Your task to perform on an android device: Search for Mexican restaurants on Maps Image 0: 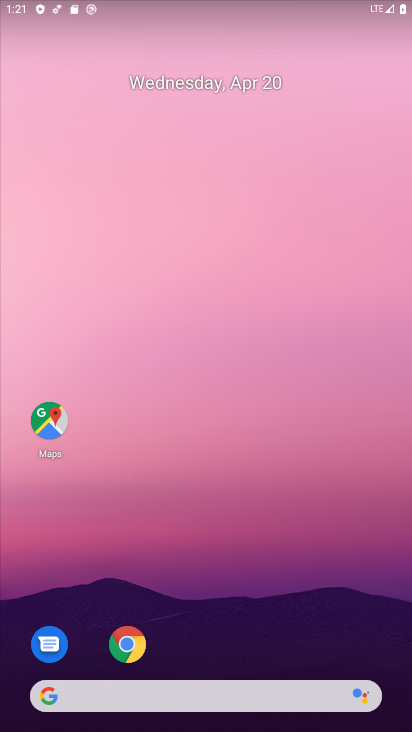
Step 0: drag from (246, 640) to (314, 8)
Your task to perform on an android device: Search for Mexican restaurants on Maps Image 1: 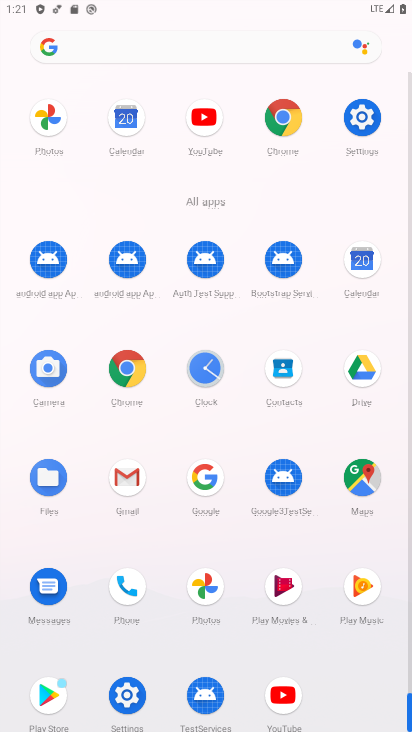
Step 1: click (358, 473)
Your task to perform on an android device: Search for Mexican restaurants on Maps Image 2: 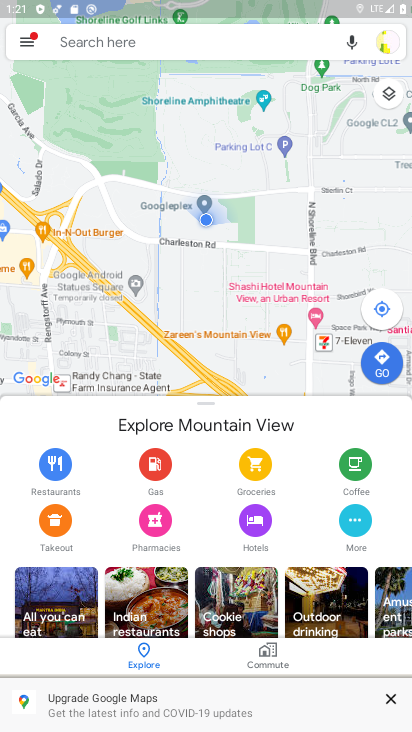
Step 2: click (167, 40)
Your task to perform on an android device: Search for Mexican restaurants on Maps Image 3: 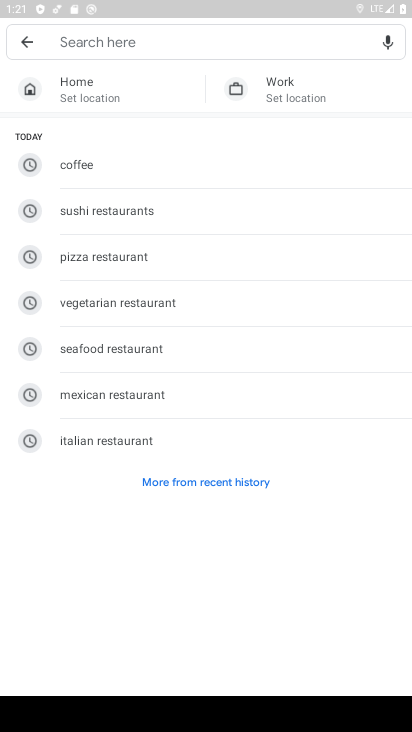
Step 3: click (167, 40)
Your task to perform on an android device: Search for Mexican restaurants on Maps Image 4: 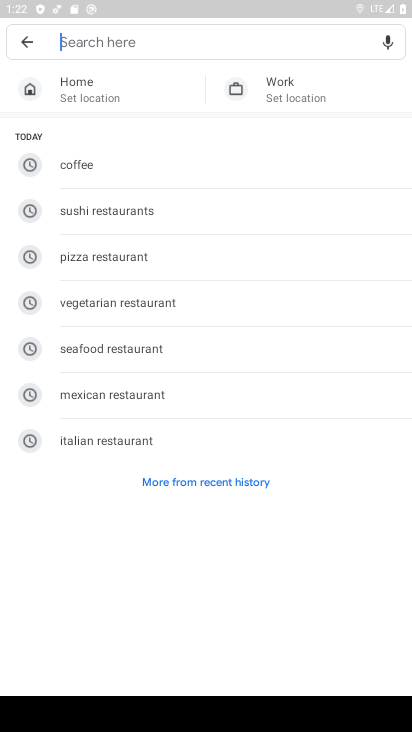
Step 4: type "mexican restaurant"
Your task to perform on an android device: Search for Mexican restaurants on Maps Image 5: 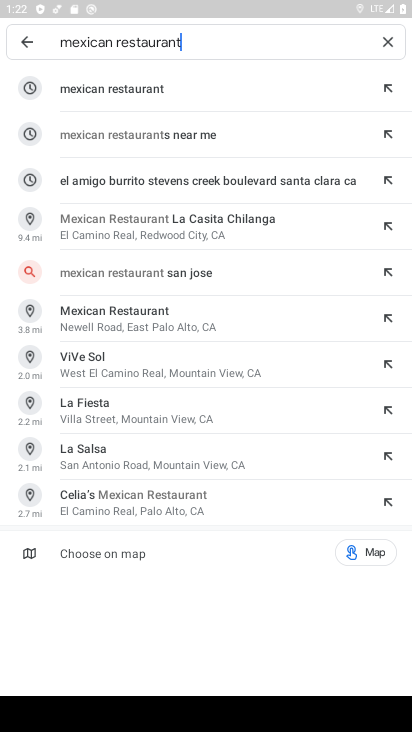
Step 5: click (306, 85)
Your task to perform on an android device: Search for Mexican restaurants on Maps Image 6: 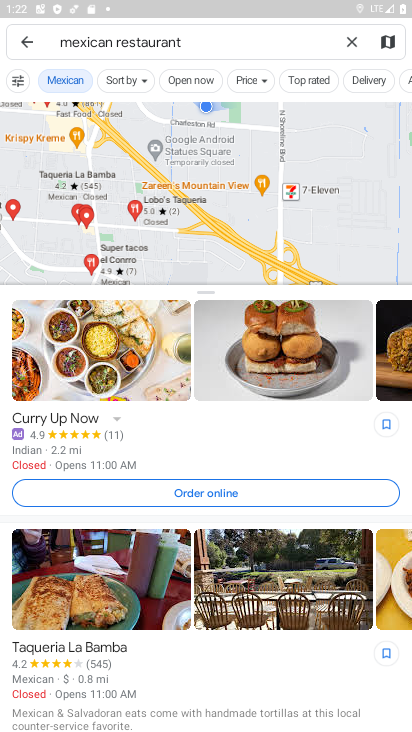
Step 6: task complete